Your task to perform on an android device: Search for pizza restaurants on Maps Image 0: 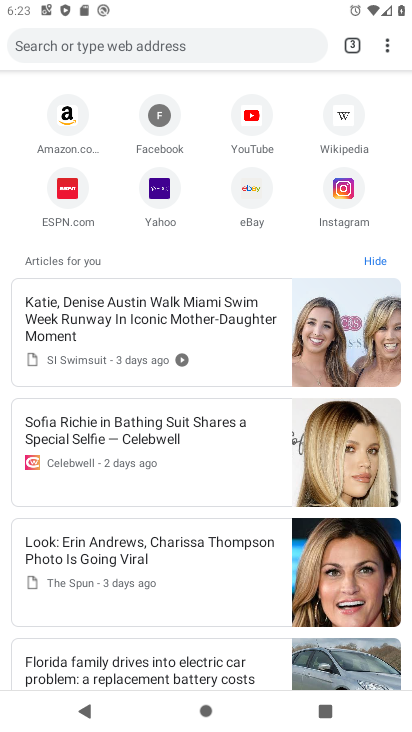
Step 0: press home button
Your task to perform on an android device: Search for pizza restaurants on Maps Image 1: 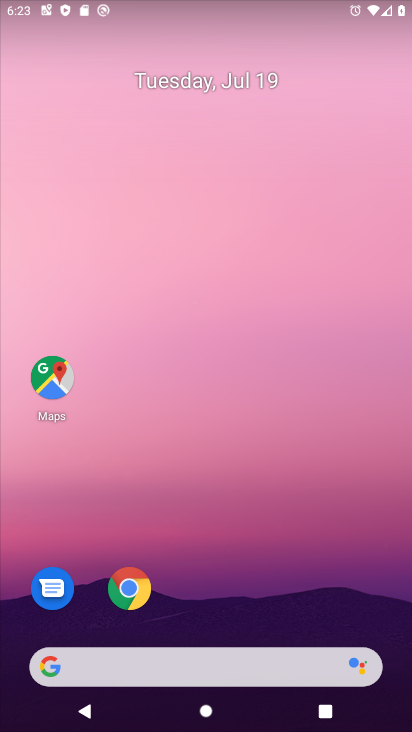
Step 1: drag from (194, 613) to (216, 156)
Your task to perform on an android device: Search for pizza restaurants on Maps Image 2: 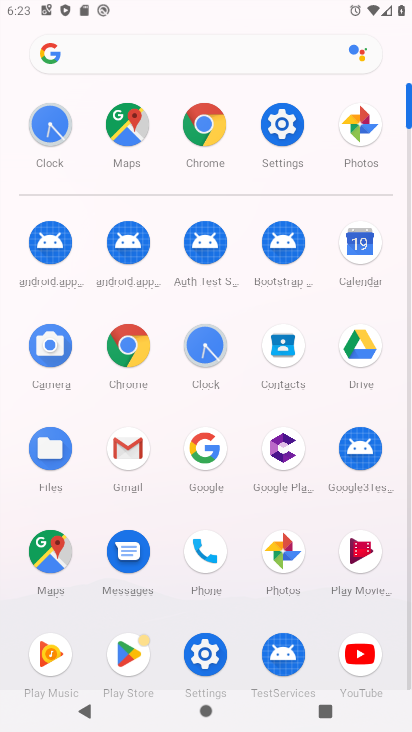
Step 2: click (132, 131)
Your task to perform on an android device: Search for pizza restaurants on Maps Image 3: 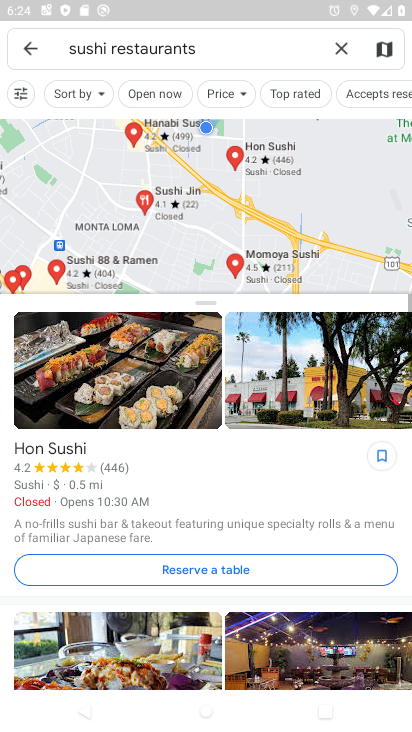
Step 3: click (339, 59)
Your task to perform on an android device: Search for pizza restaurants on Maps Image 4: 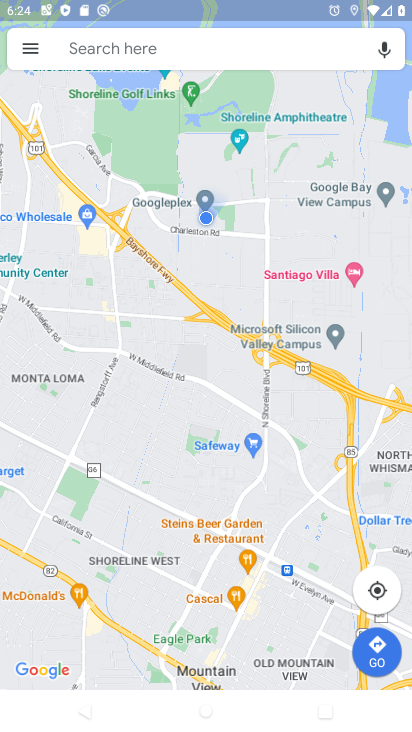
Step 4: click (170, 46)
Your task to perform on an android device: Search for pizza restaurants on Maps Image 5: 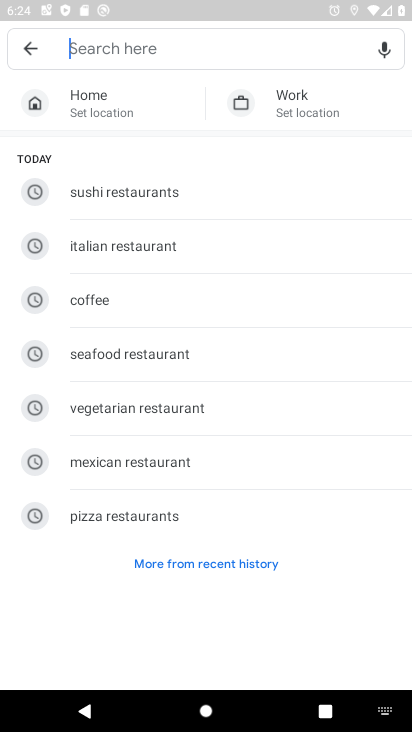
Step 5: click (121, 511)
Your task to perform on an android device: Search for pizza restaurants on Maps Image 6: 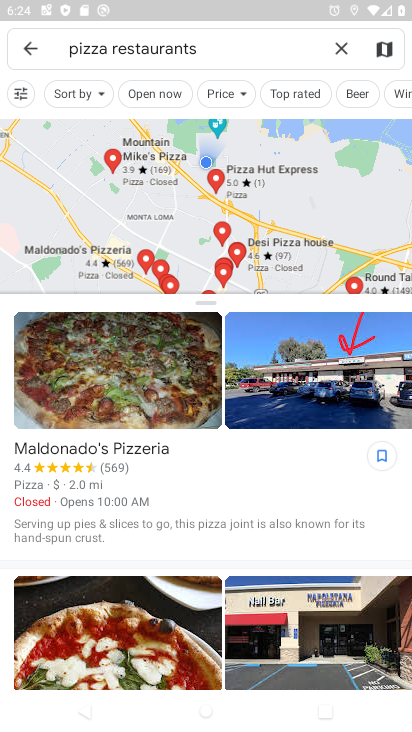
Step 6: task complete